Your task to perform on an android device: make emails show in primary in the gmail app Image 0: 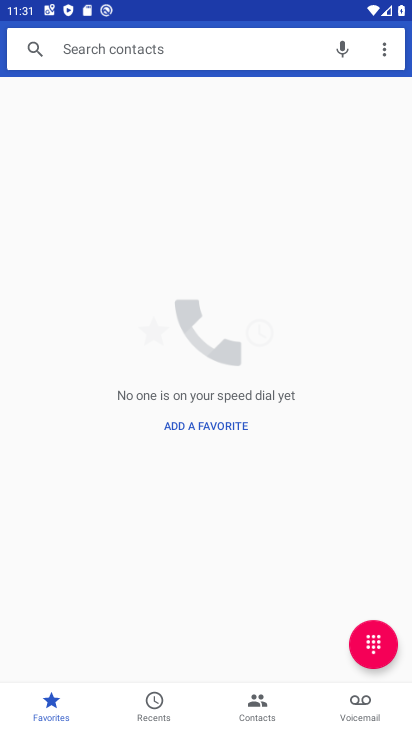
Step 0: press home button
Your task to perform on an android device: make emails show in primary in the gmail app Image 1: 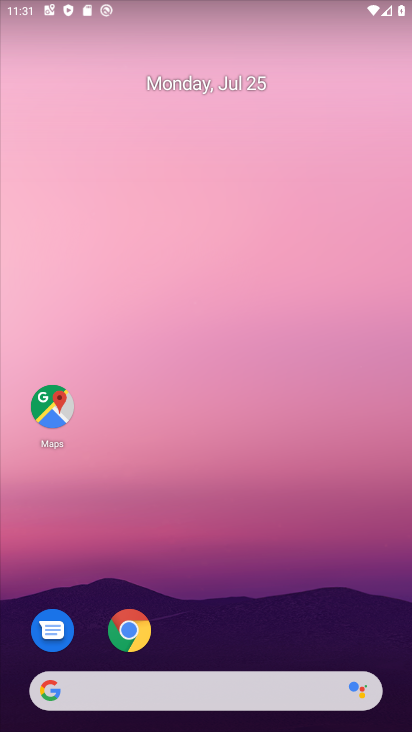
Step 1: drag from (349, 631) to (368, 159)
Your task to perform on an android device: make emails show in primary in the gmail app Image 2: 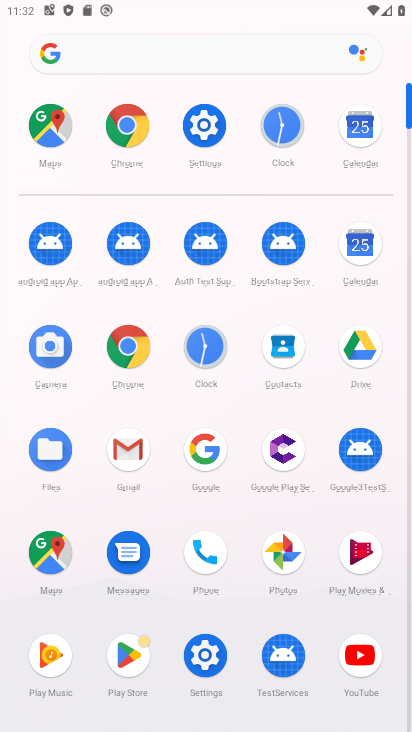
Step 2: click (128, 452)
Your task to perform on an android device: make emails show in primary in the gmail app Image 3: 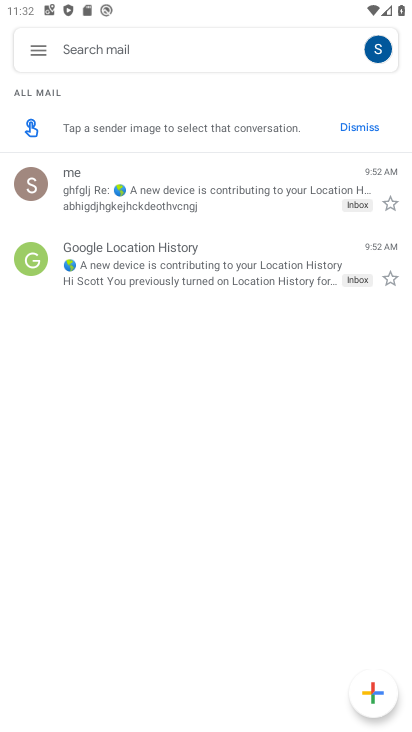
Step 3: click (36, 45)
Your task to perform on an android device: make emails show in primary in the gmail app Image 4: 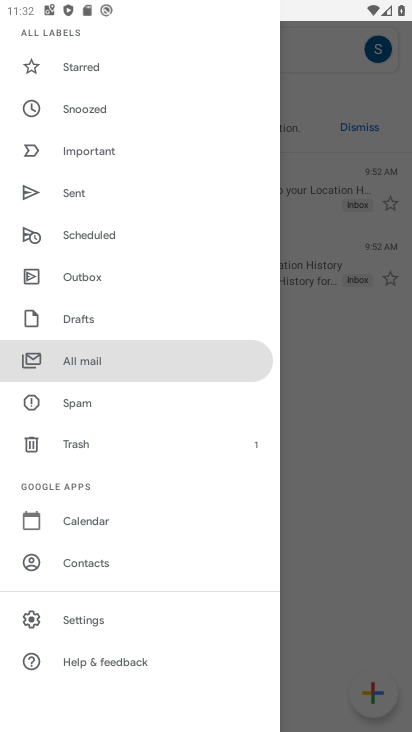
Step 4: click (152, 608)
Your task to perform on an android device: make emails show in primary in the gmail app Image 5: 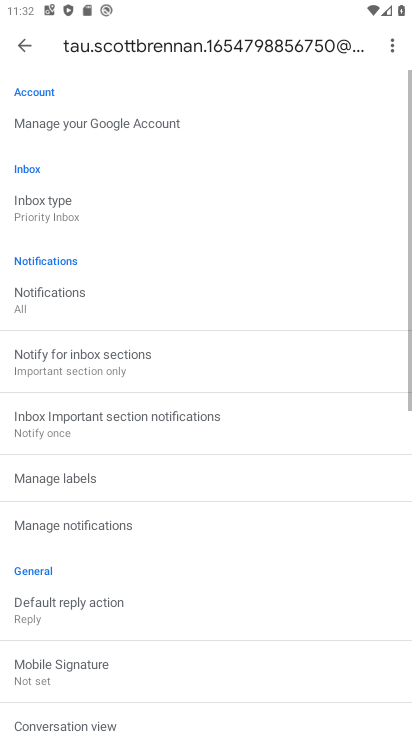
Step 5: drag from (257, 507) to (272, 416)
Your task to perform on an android device: make emails show in primary in the gmail app Image 6: 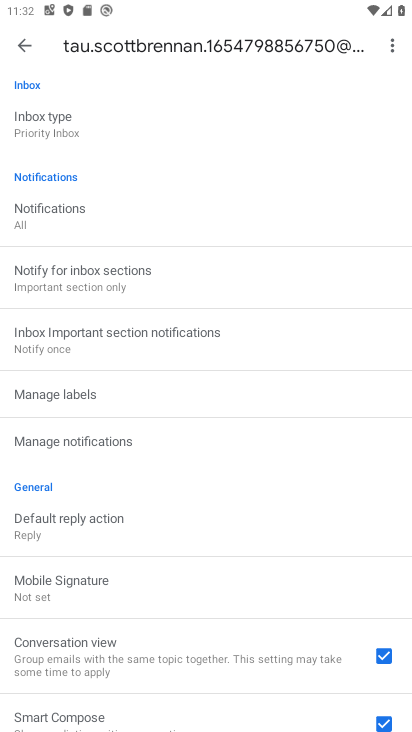
Step 6: drag from (293, 566) to (299, 456)
Your task to perform on an android device: make emails show in primary in the gmail app Image 7: 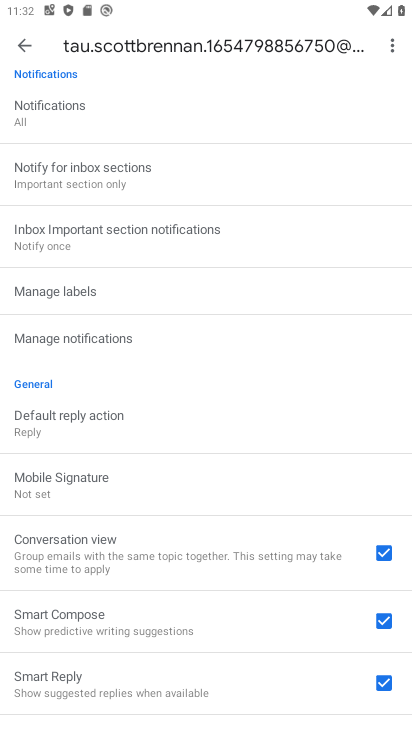
Step 7: drag from (303, 623) to (305, 501)
Your task to perform on an android device: make emails show in primary in the gmail app Image 8: 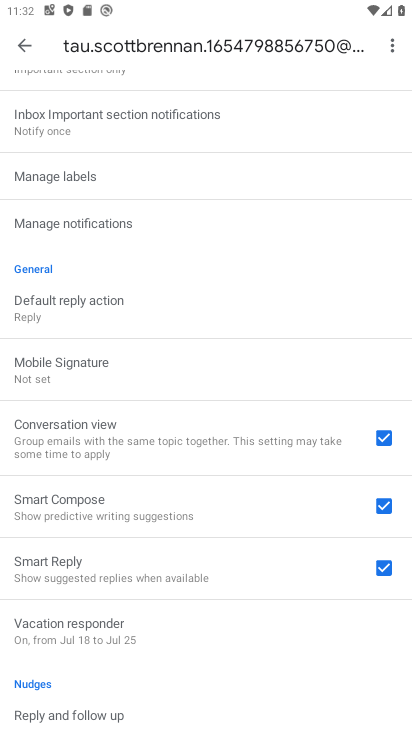
Step 8: drag from (295, 630) to (292, 475)
Your task to perform on an android device: make emails show in primary in the gmail app Image 9: 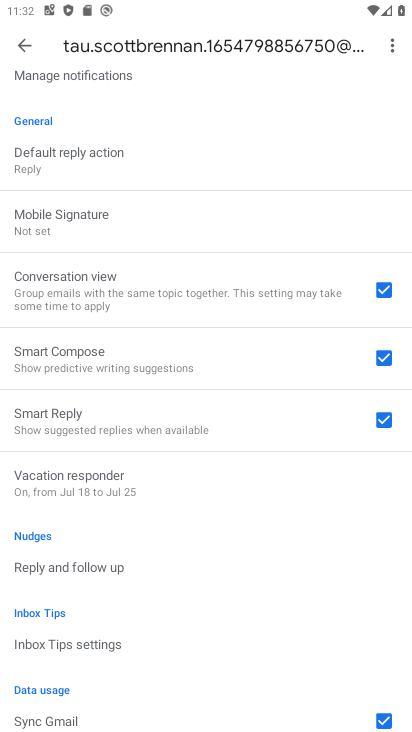
Step 9: drag from (283, 628) to (286, 395)
Your task to perform on an android device: make emails show in primary in the gmail app Image 10: 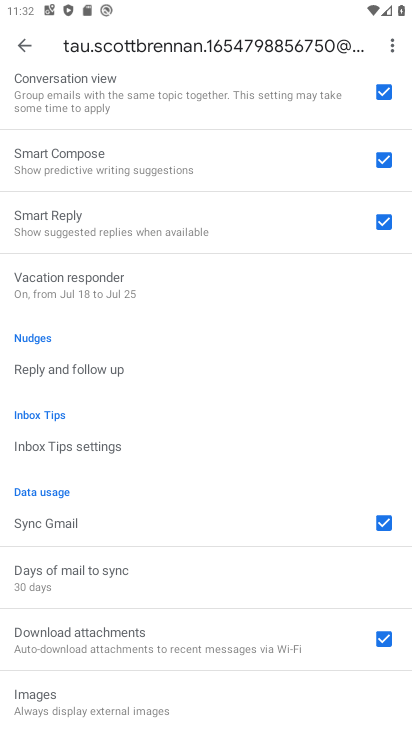
Step 10: drag from (314, 285) to (307, 380)
Your task to perform on an android device: make emails show in primary in the gmail app Image 11: 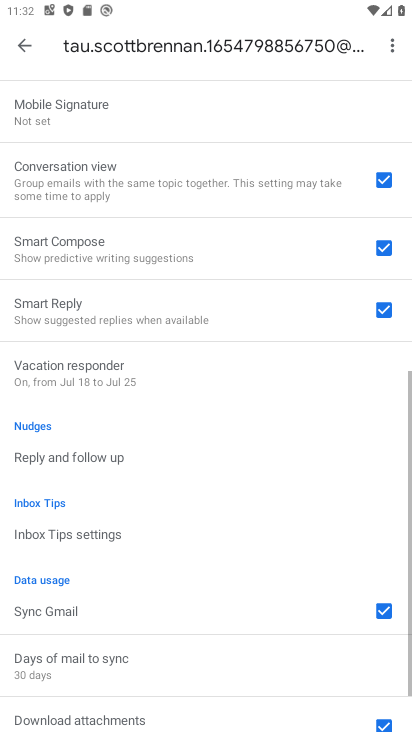
Step 11: drag from (299, 213) to (304, 349)
Your task to perform on an android device: make emails show in primary in the gmail app Image 12: 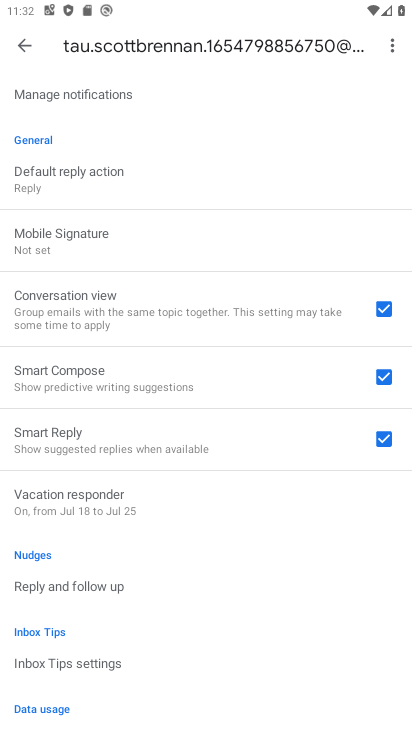
Step 12: drag from (275, 153) to (275, 300)
Your task to perform on an android device: make emails show in primary in the gmail app Image 13: 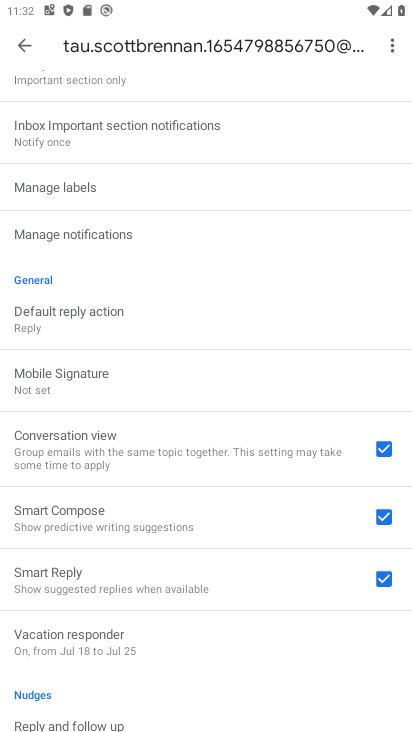
Step 13: drag from (252, 204) to (254, 354)
Your task to perform on an android device: make emails show in primary in the gmail app Image 14: 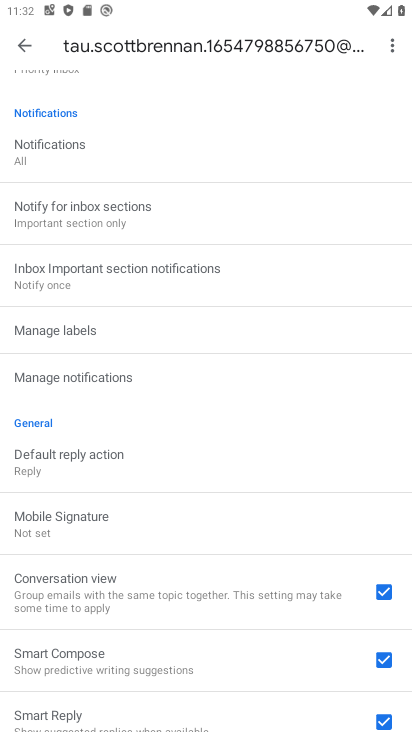
Step 14: drag from (250, 131) to (251, 326)
Your task to perform on an android device: make emails show in primary in the gmail app Image 15: 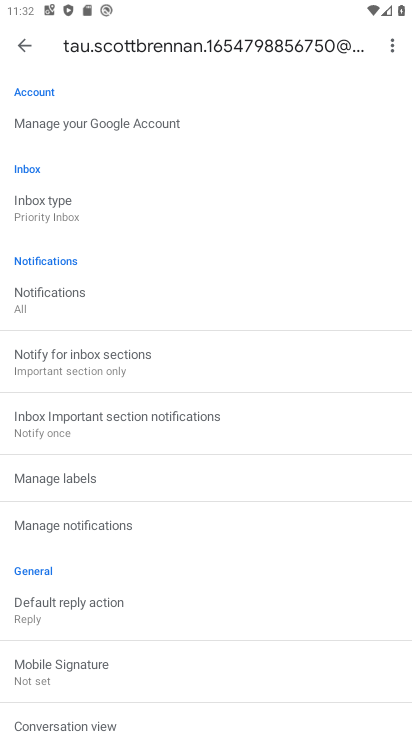
Step 15: click (86, 211)
Your task to perform on an android device: make emails show in primary in the gmail app Image 16: 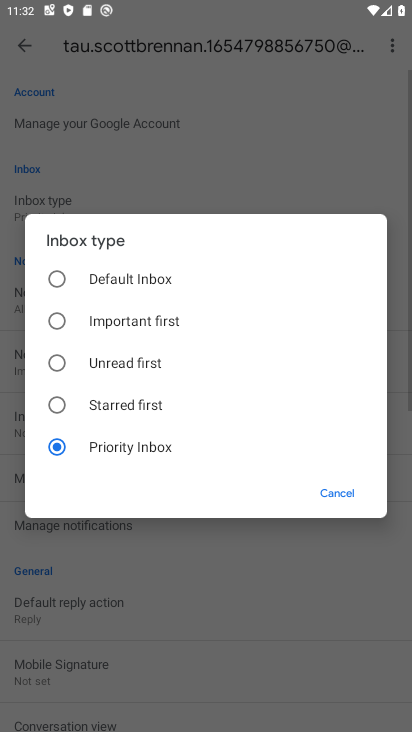
Step 16: click (112, 271)
Your task to perform on an android device: make emails show in primary in the gmail app Image 17: 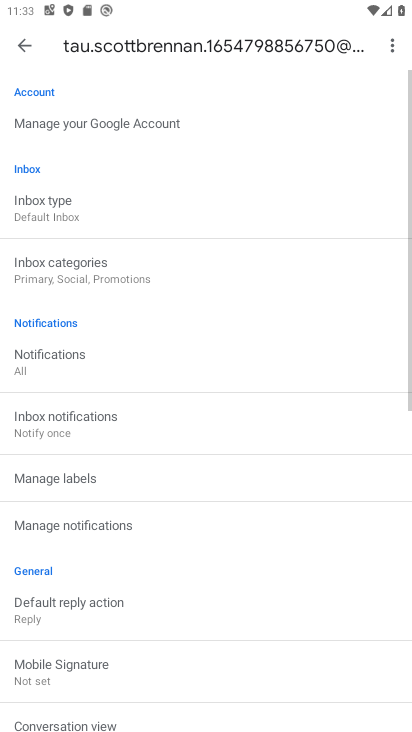
Step 17: click (124, 273)
Your task to perform on an android device: make emails show in primary in the gmail app Image 18: 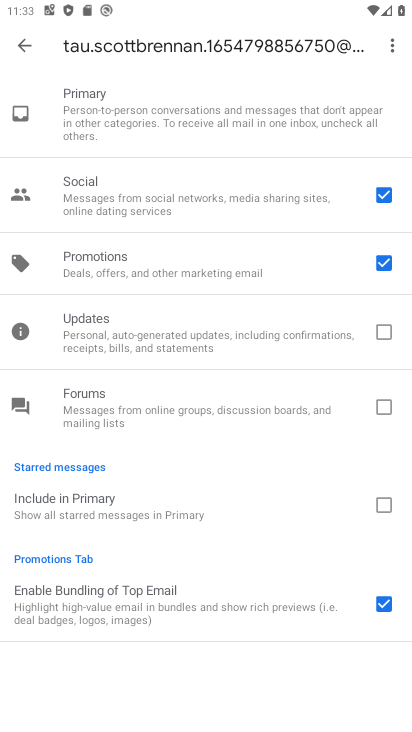
Step 18: click (382, 258)
Your task to perform on an android device: make emails show in primary in the gmail app Image 19: 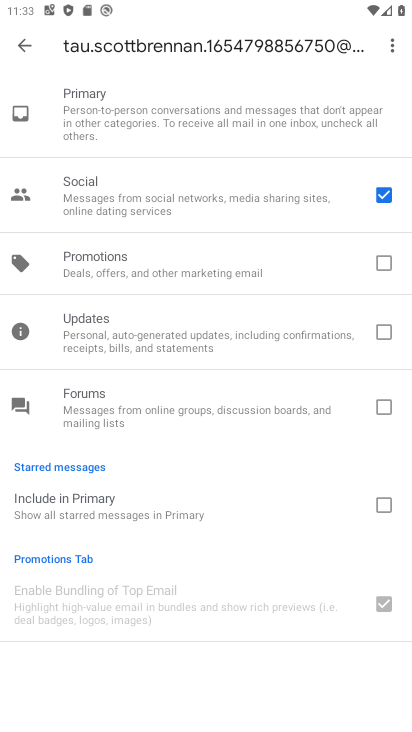
Step 19: click (381, 196)
Your task to perform on an android device: make emails show in primary in the gmail app Image 20: 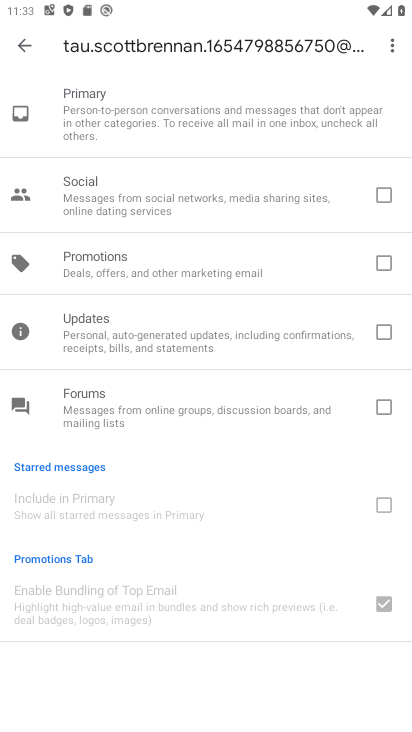
Step 20: task complete